Your task to perform on an android device: turn notification dots off Image 0: 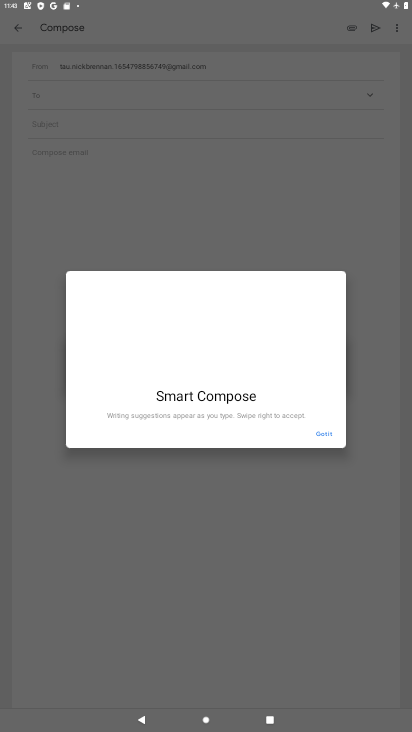
Step 0: press home button
Your task to perform on an android device: turn notification dots off Image 1: 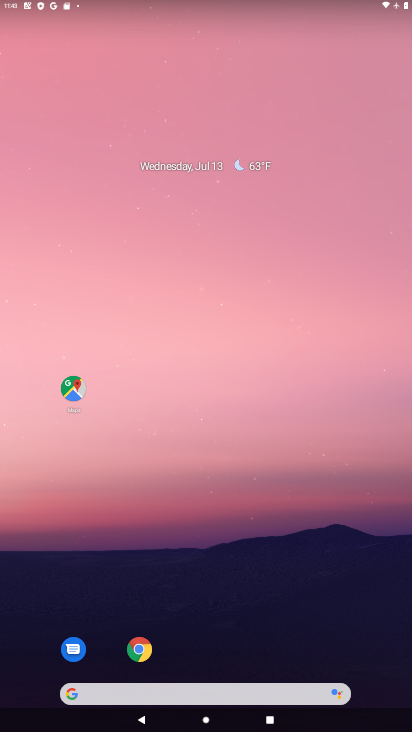
Step 1: drag from (193, 620) to (230, 229)
Your task to perform on an android device: turn notification dots off Image 2: 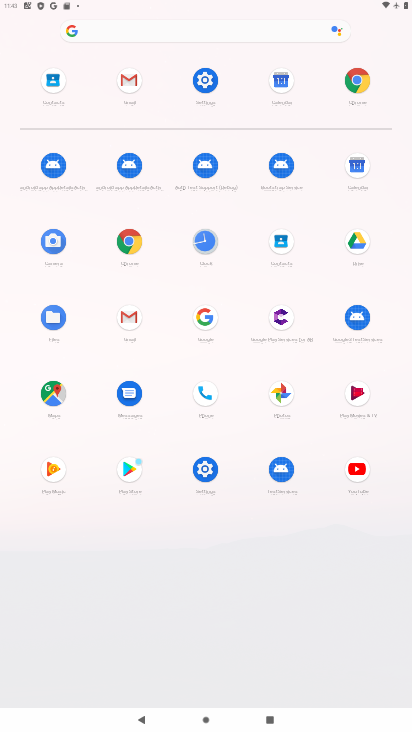
Step 2: click (213, 76)
Your task to perform on an android device: turn notification dots off Image 3: 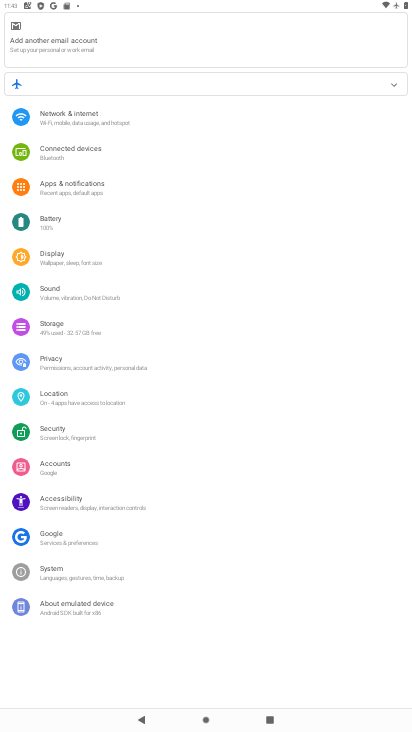
Step 3: click (113, 79)
Your task to perform on an android device: turn notification dots off Image 4: 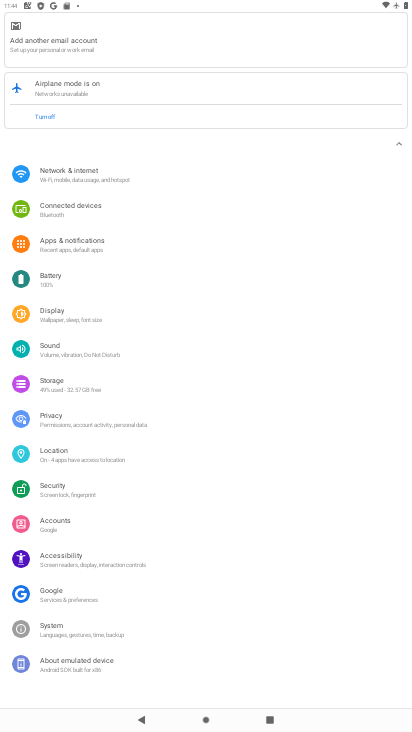
Step 4: type " notification dots  "
Your task to perform on an android device: turn notification dots off Image 5: 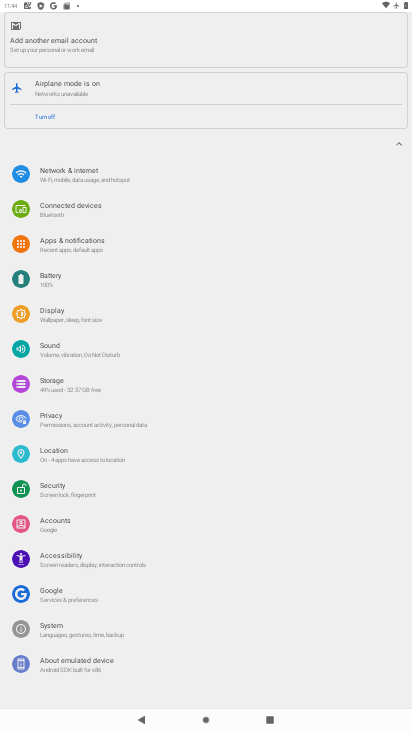
Step 5: drag from (143, 87) to (137, 496)
Your task to perform on an android device: turn notification dots off Image 6: 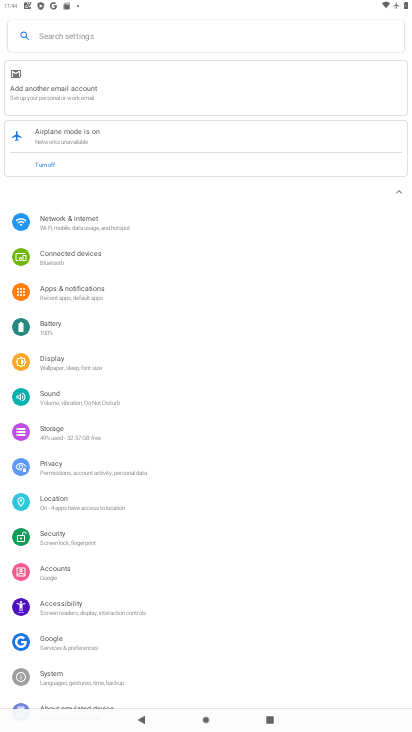
Step 6: click (135, 30)
Your task to perform on an android device: turn notification dots off Image 7: 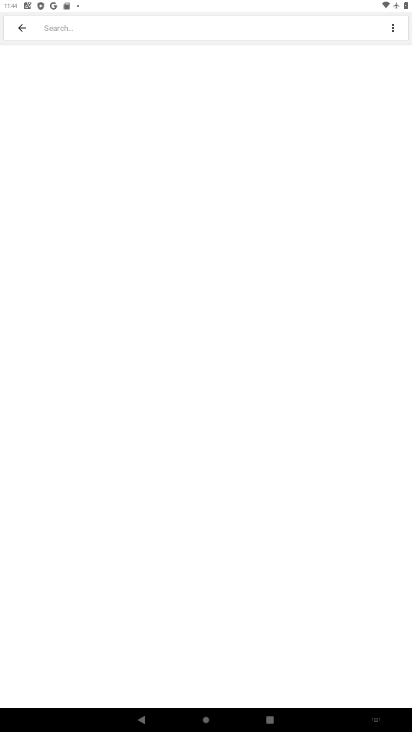
Step 7: type "notification dot "
Your task to perform on an android device: turn notification dots off Image 8: 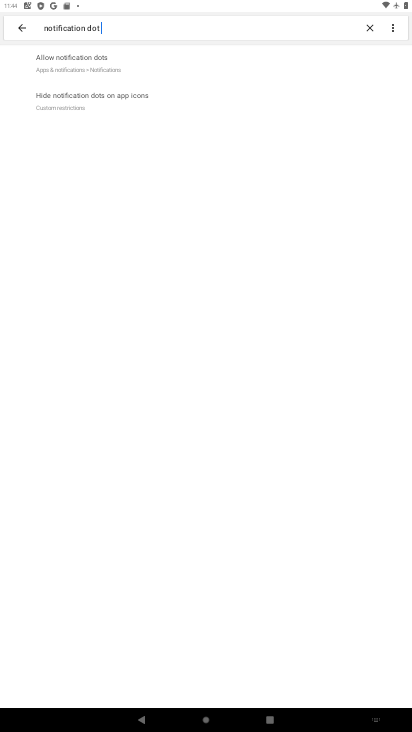
Step 8: click (144, 74)
Your task to perform on an android device: turn notification dots off Image 9: 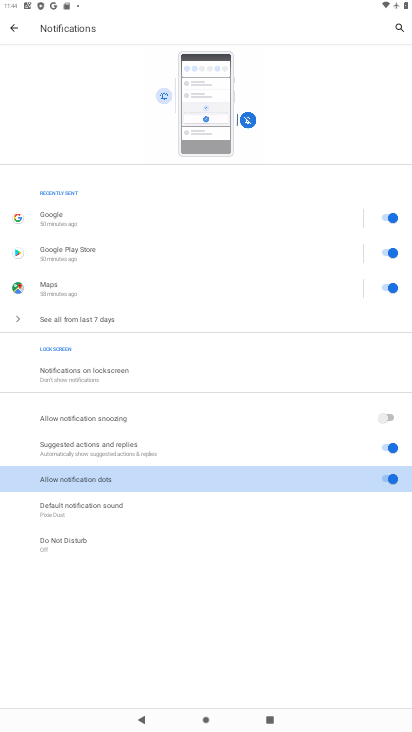
Step 9: click (387, 475)
Your task to perform on an android device: turn notification dots off Image 10: 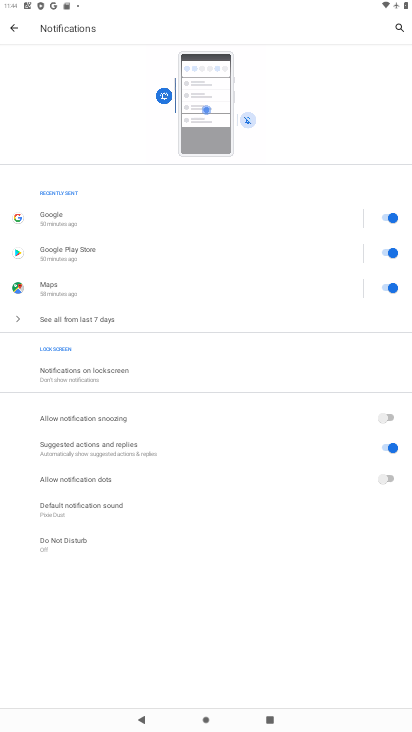
Step 10: task complete